Your task to perform on an android device: toggle wifi Image 0: 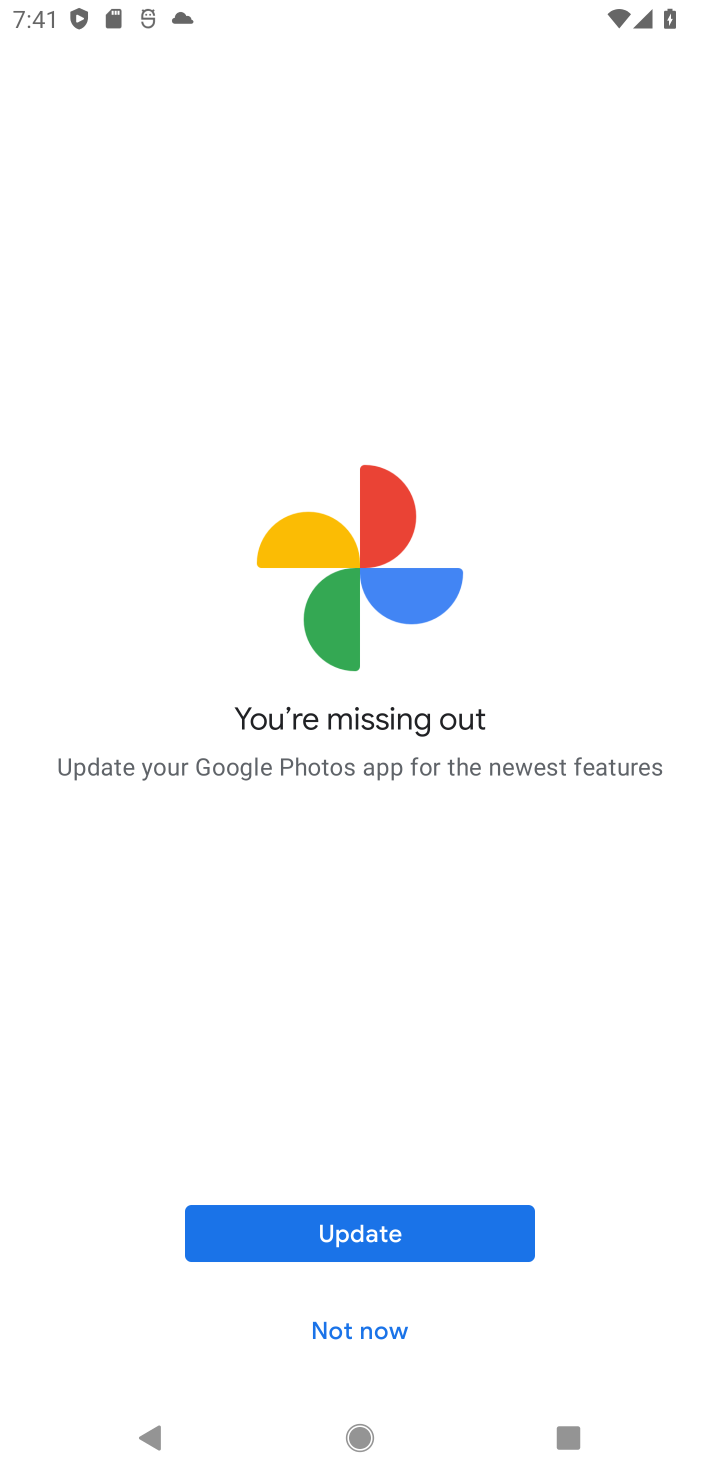
Step 0: press home button
Your task to perform on an android device: toggle wifi Image 1: 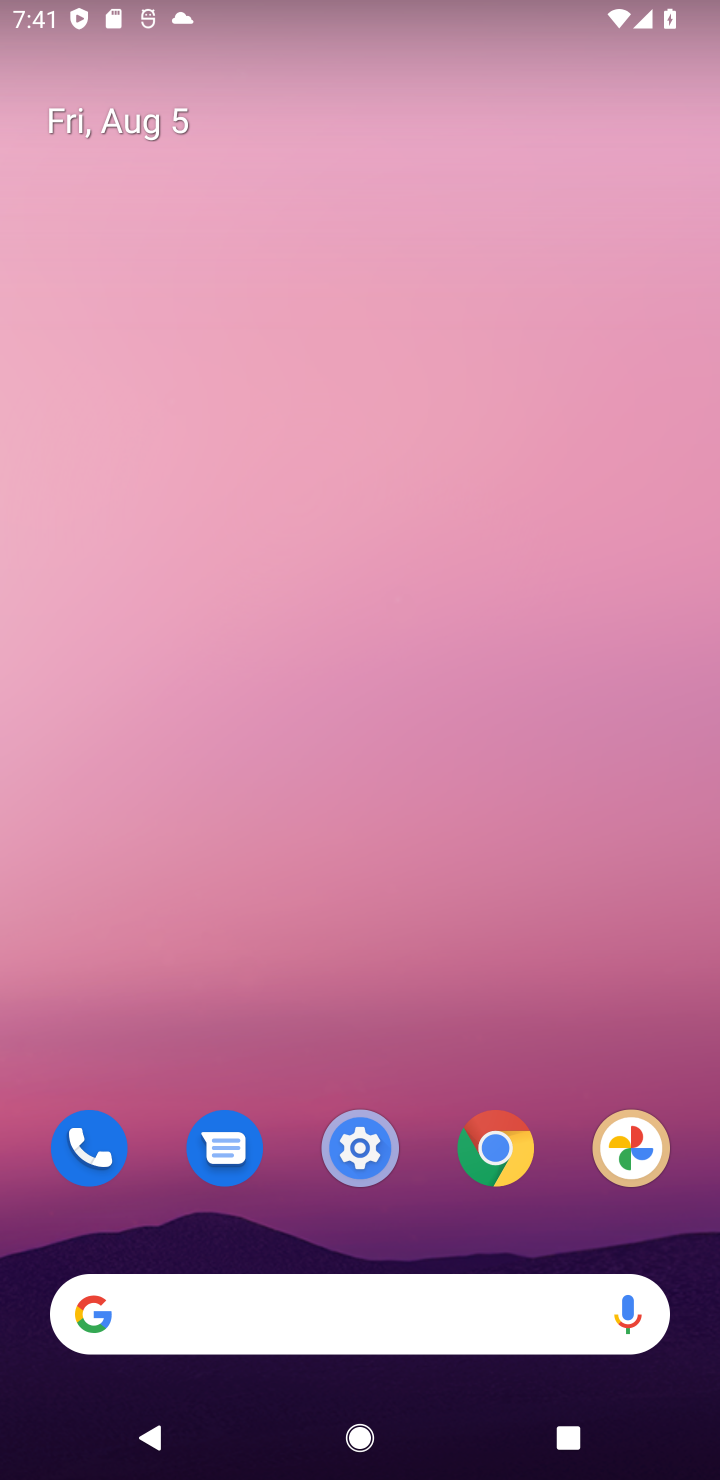
Step 1: click (373, 1138)
Your task to perform on an android device: toggle wifi Image 2: 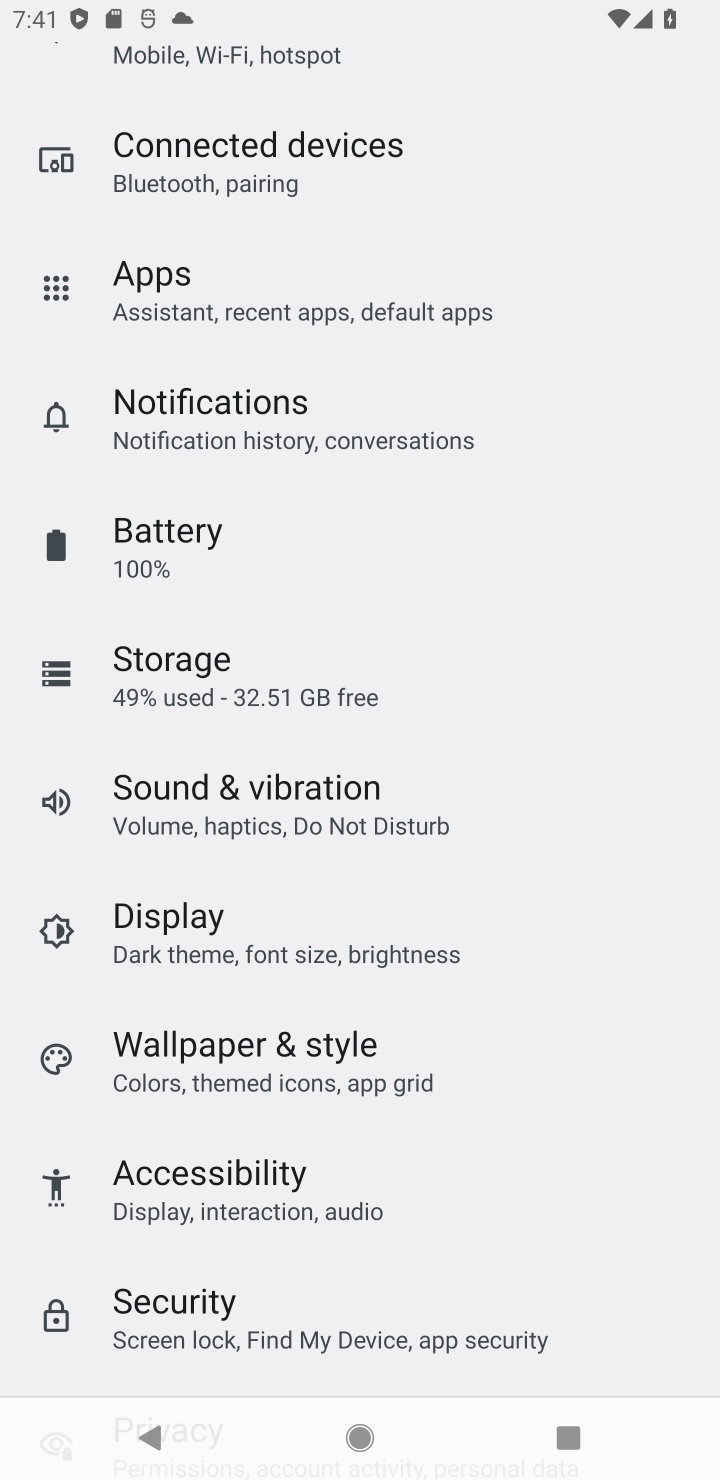
Step 2: drag from (418, 539) to (452, 1287)
Your task to perform on an android device: toggle wifi Image 3: 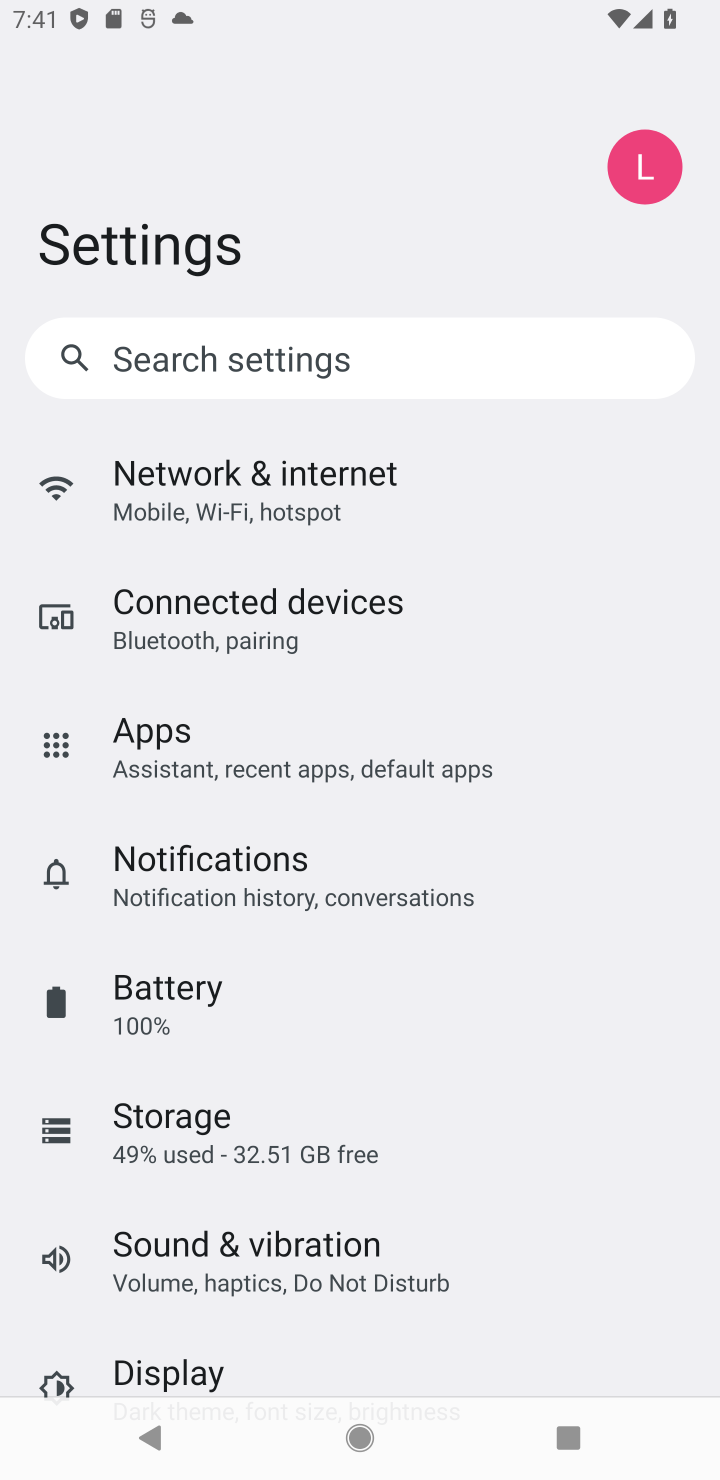
Step 3: click (470, 504)
Your task to perform on an android device: toggle wifi Image 4: 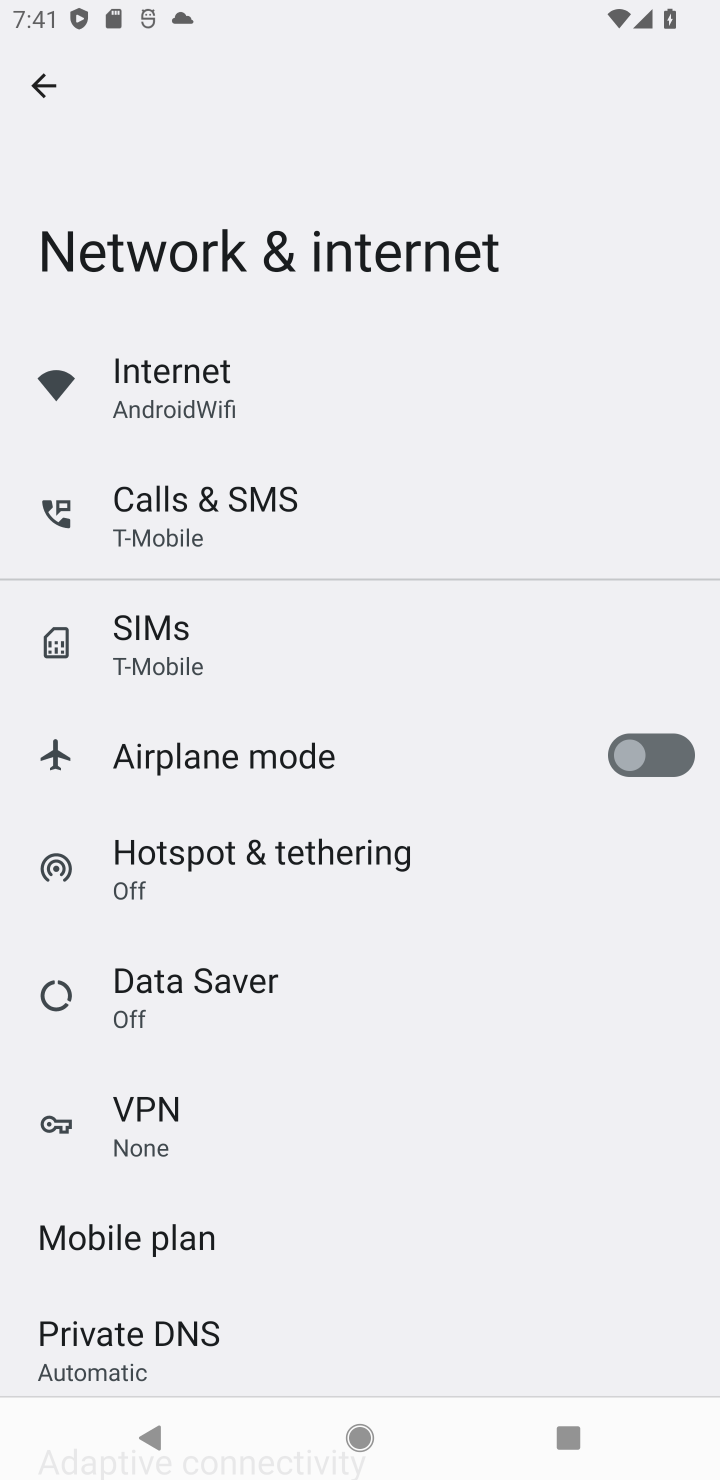
Step 4: click (515, 383)
Your task to perform on an android device: toggle wifi Image 5: 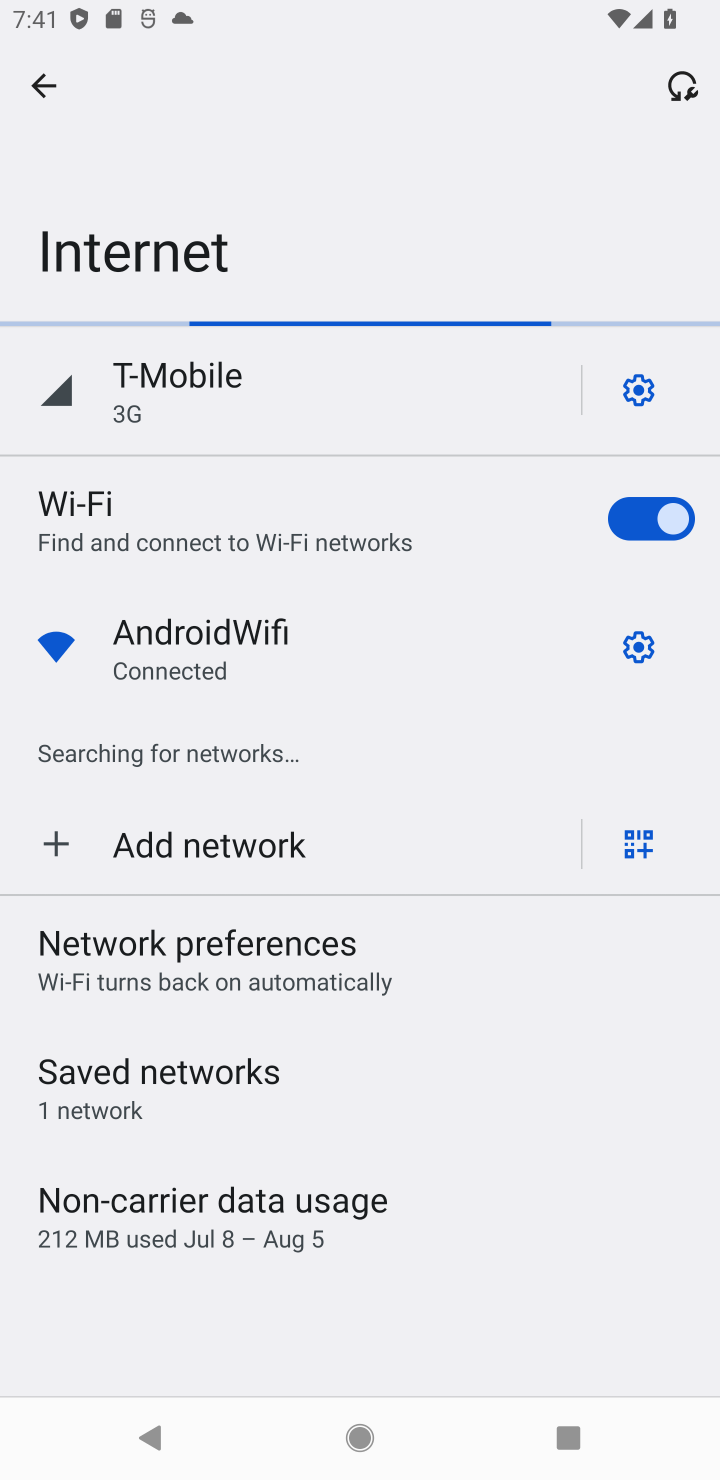
Step 5: task complete